Your task to perform on an android device: change alarm snooze length Image 0: 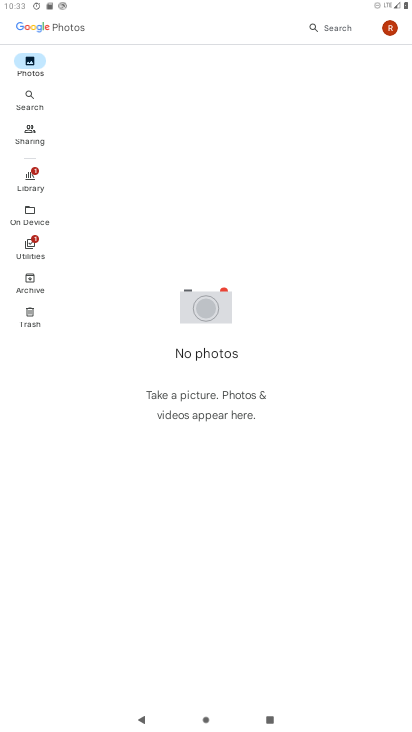
Step 0: press home button
Your task to perform on an android device: change alarm snooze length Image 1: 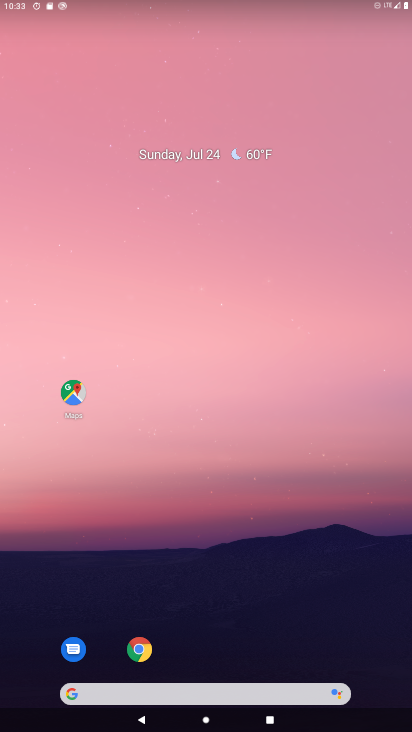
Step 1: drag from (342, 616) to (270, 96)
Your task to perform on an android device: change alarm snooze length Image 2: 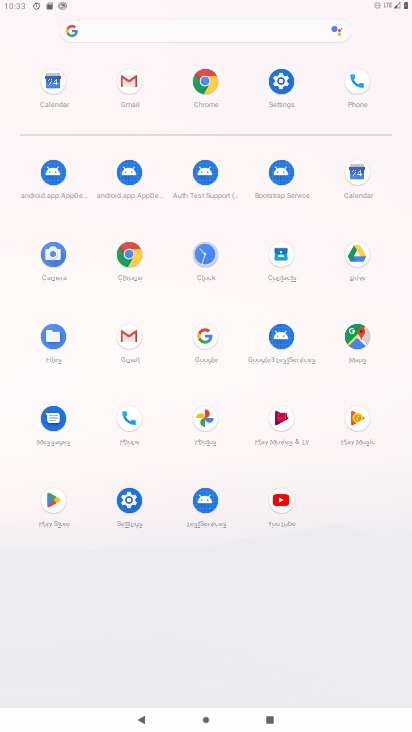
Step 2: click (200, 264)
Your task to perform on an android device: change alarm snooze length Image 3: 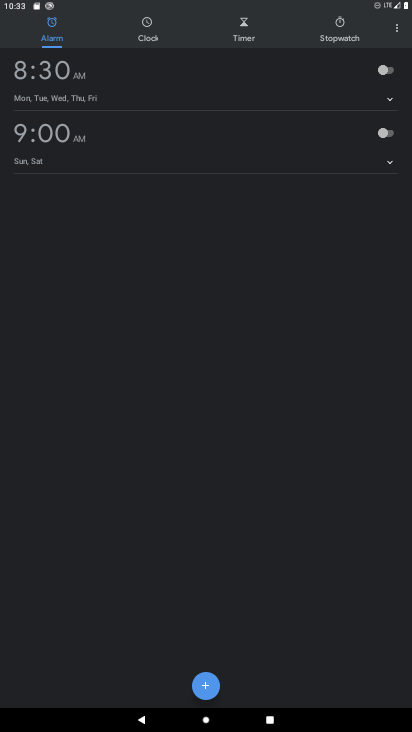
Step 3: click (398, 30)
Your task to perform on an android device: change alarm snooze length Image 4: 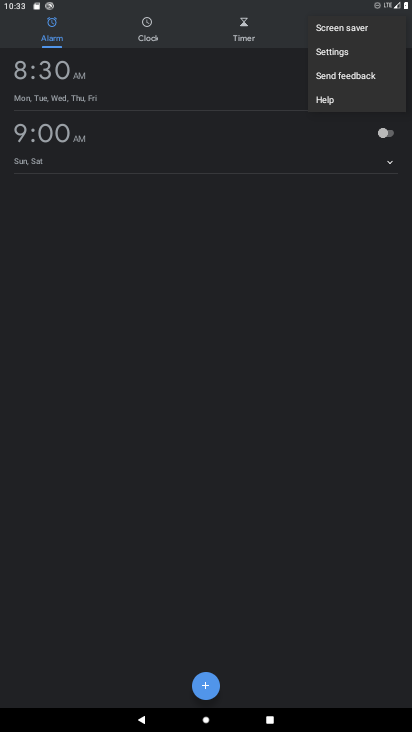
Step 4: click (337, 56)
Your task to perform on an android device: change alarm snooze length Image 5: 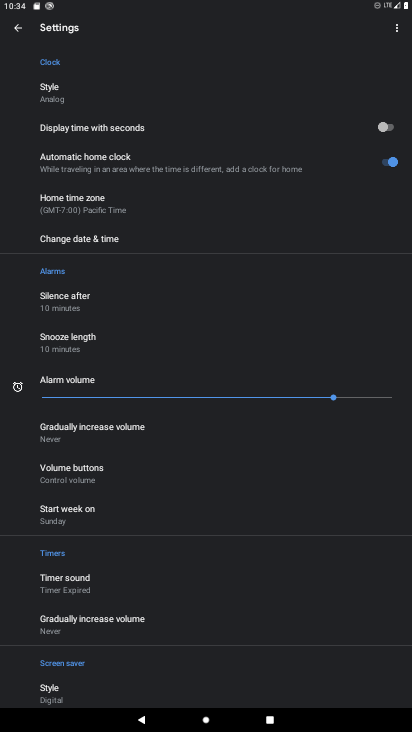
Step 5: click (91, 352)
Your task to perform on an android device: change alarm snooze length Image 6: 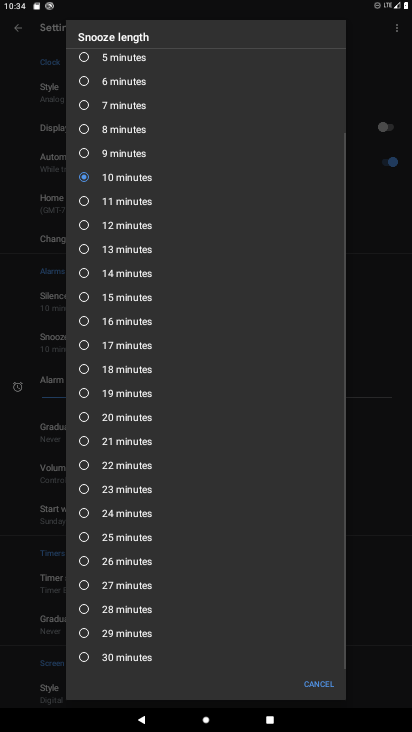
Step 6: click (111, 203)
Your task to perform on an android device: change alarm snooze length Image 7: 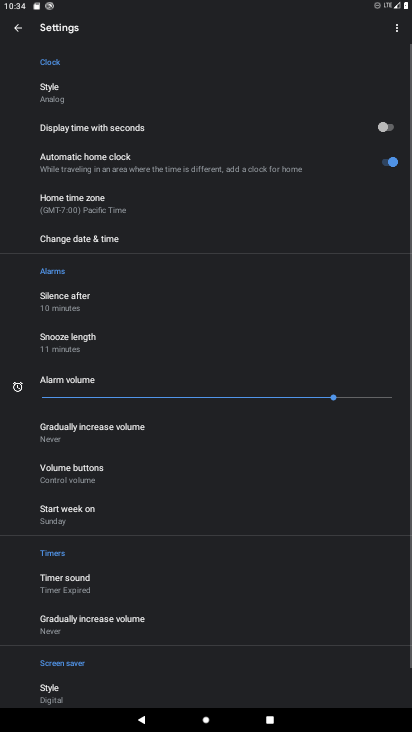
Step 7: task complete